Your task to perform on an android device: What's the weather going to be tomorrow? Image 0: 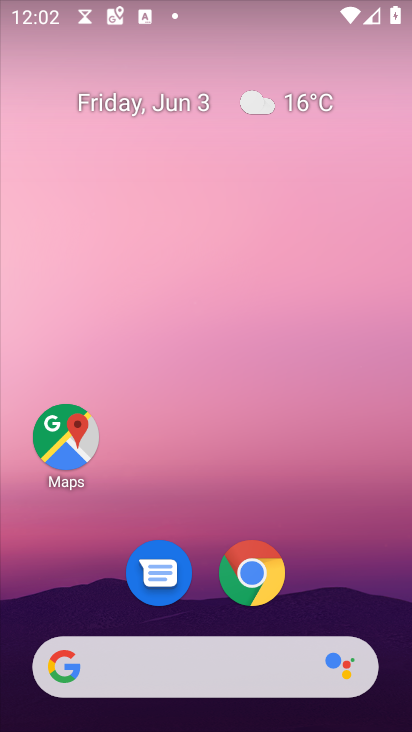
Step 0: click (311, 95)
Your task to perform on an android device: What's the weather going to be tomorrow? Image 1: 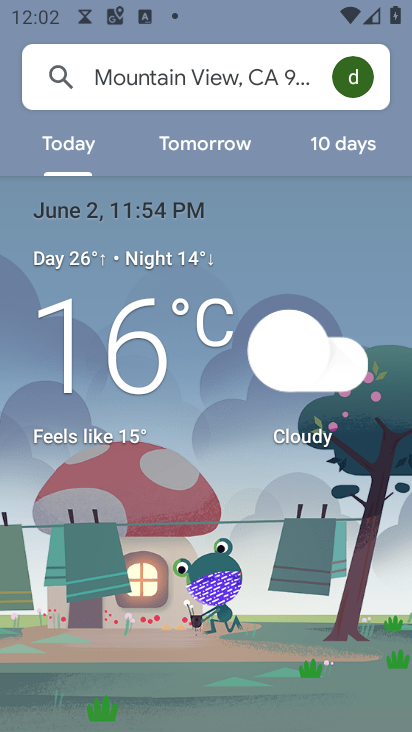
Step 1: click (226, 148)
Your task to perform on an android device: What's the weather going to be tomorrow? Image 2: 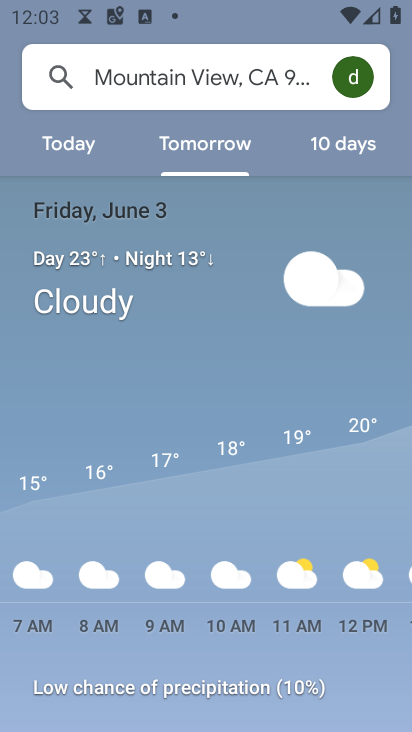
Step 2: task complete